Your task to perform on an android device: Search for the best running shoes on Nike. Image 0: 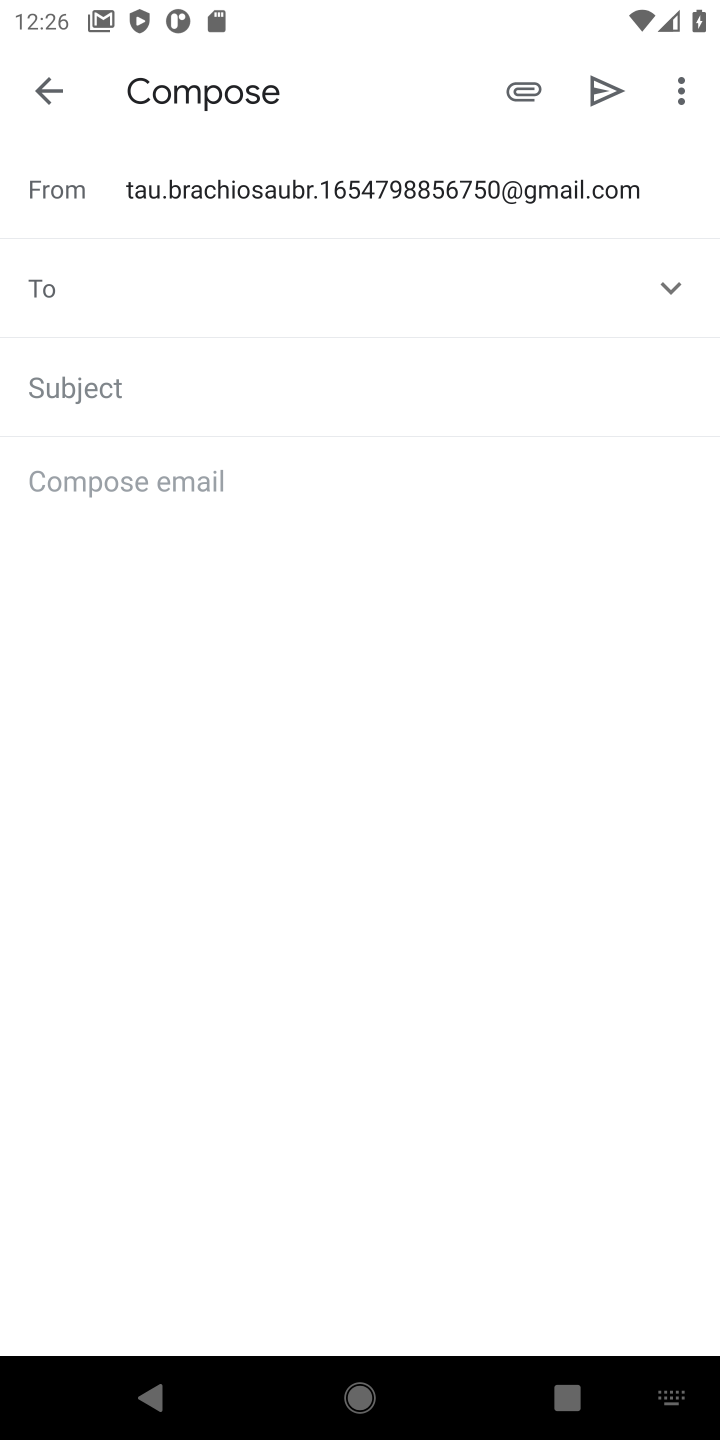
Step 0: press home button
Your task to perform on an android device: Search for the best running shoes on Nike. Image 1: 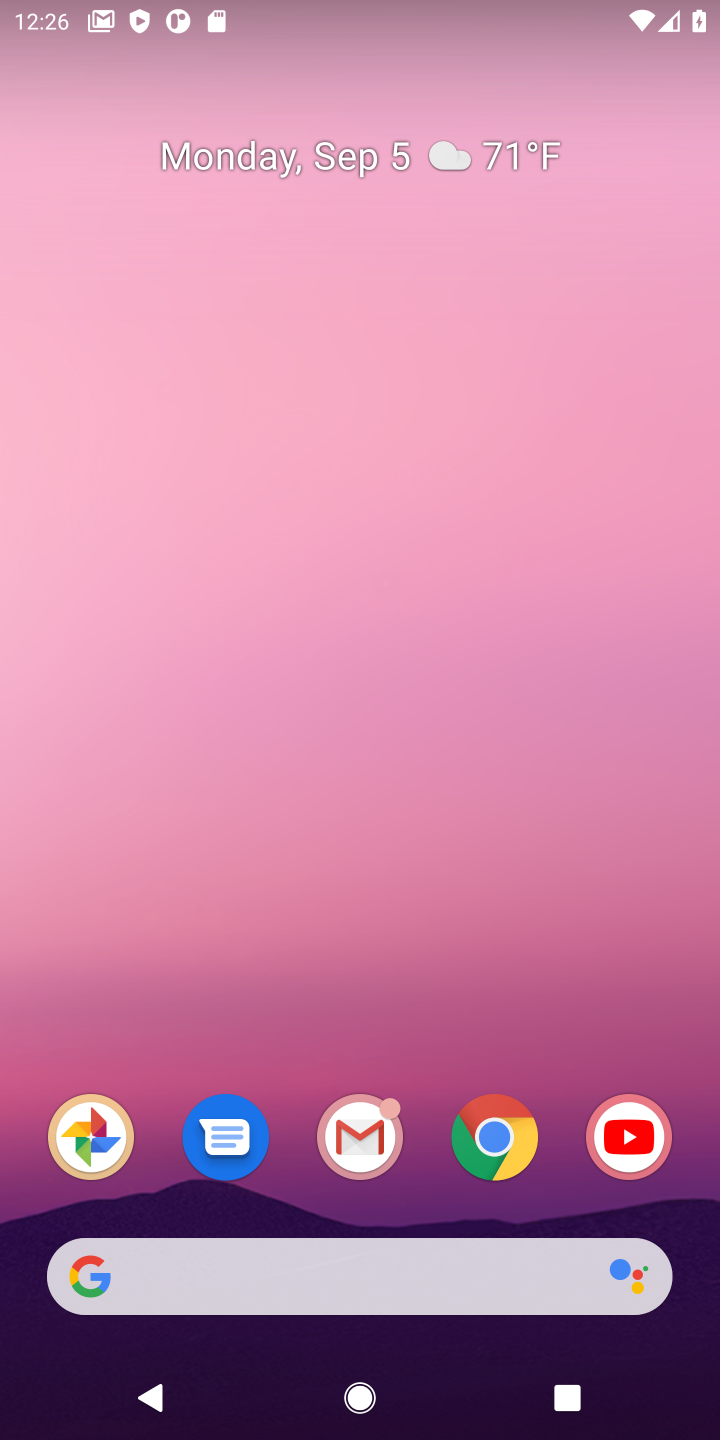
Step 1: click (486, 1141)
Your task to perform on an android device: Search for the best running shoes on Nike. Image 2: 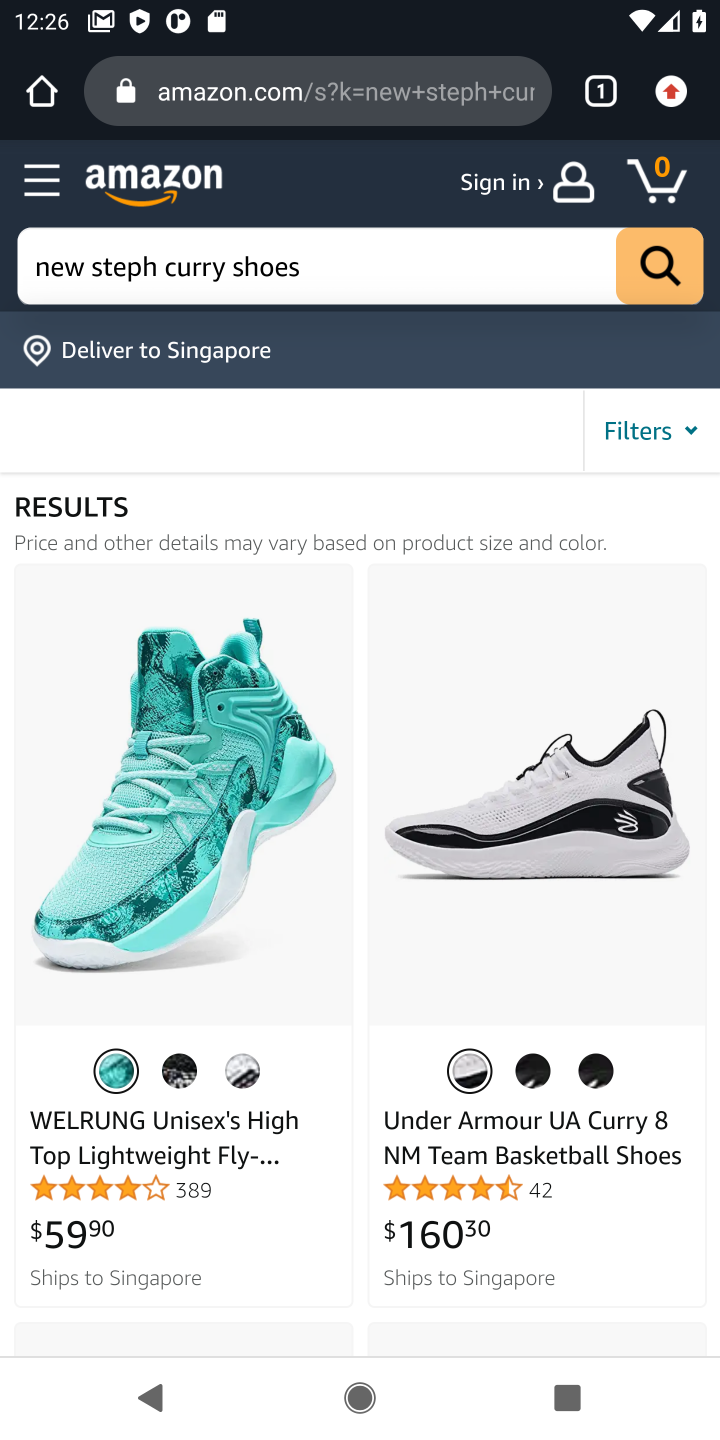
Step 2: click (295, 105)
Your task to perform on an android device: Search for the best running shoes on Nike. Image 3: 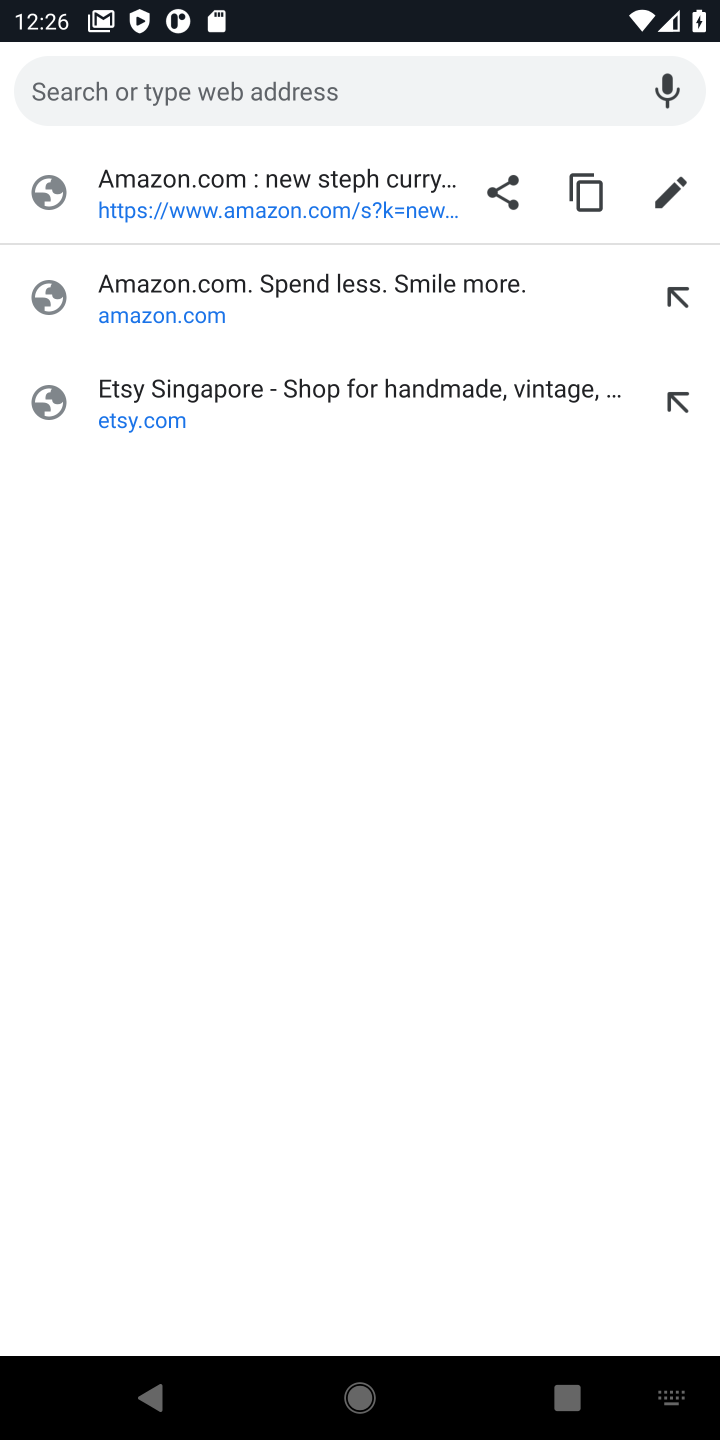
Step 3: click (443, 95)
Your task to perform on an android device: Search for the best running shoes on Nike. Image 4: 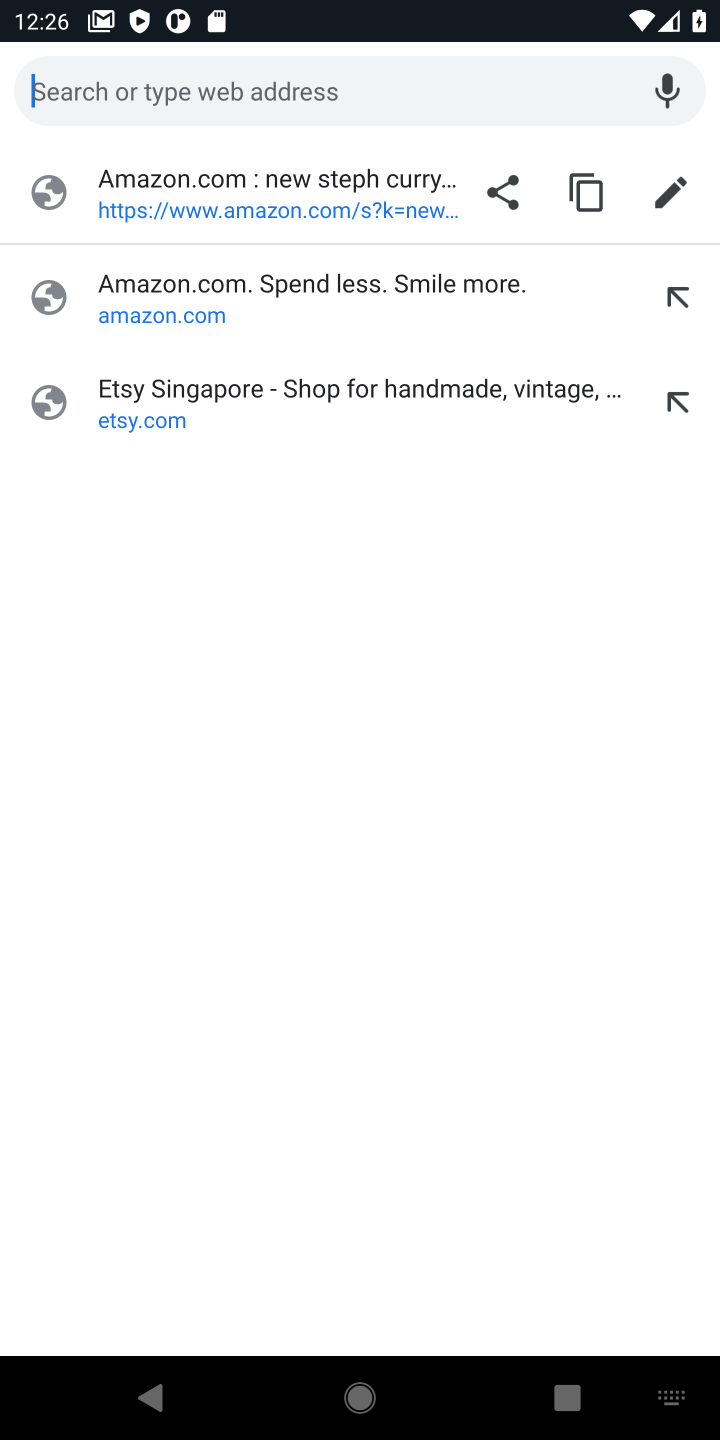
Step 4: type "nike"
Your task to perform on an android device: Search for the best running shoes on Nike. Image 5: 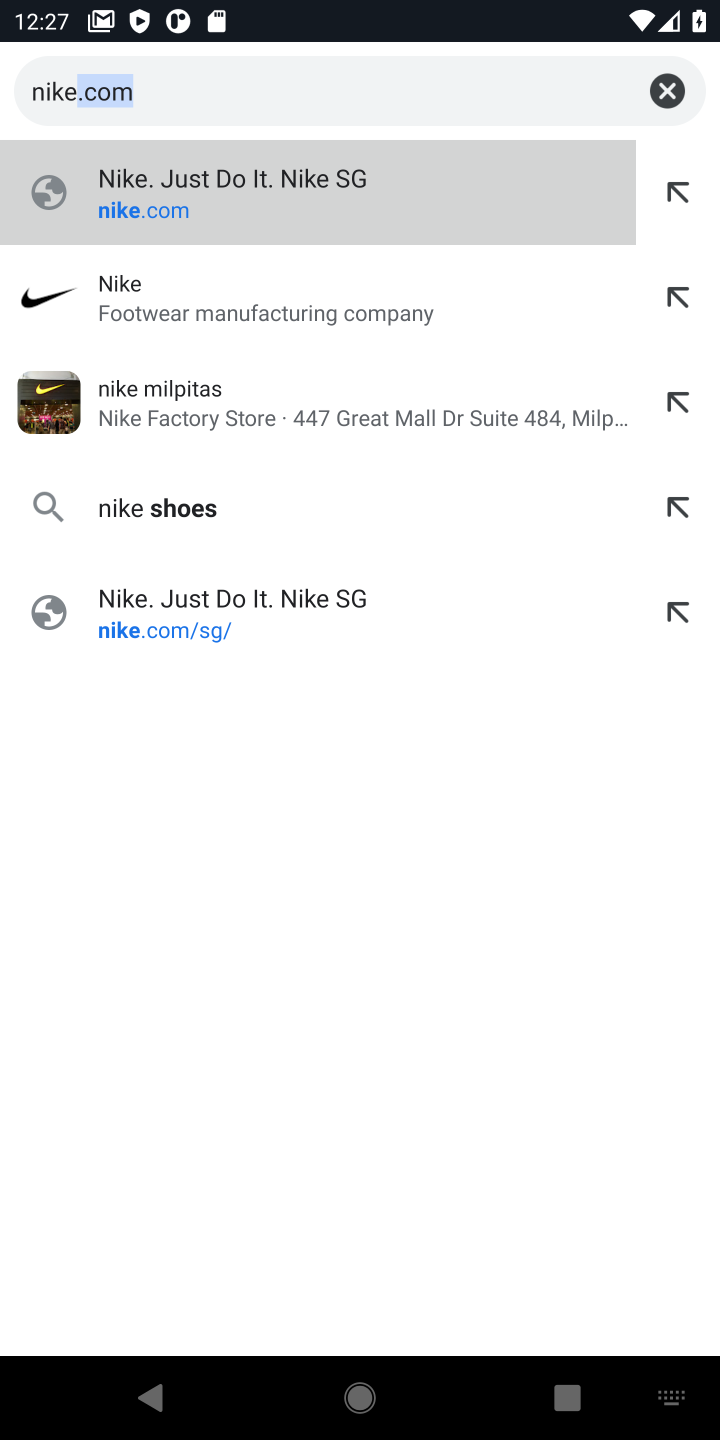
Step 5: click (223, 189)
Your task to perform on an android device: Search for the best running shoes on Nike. Image 6: 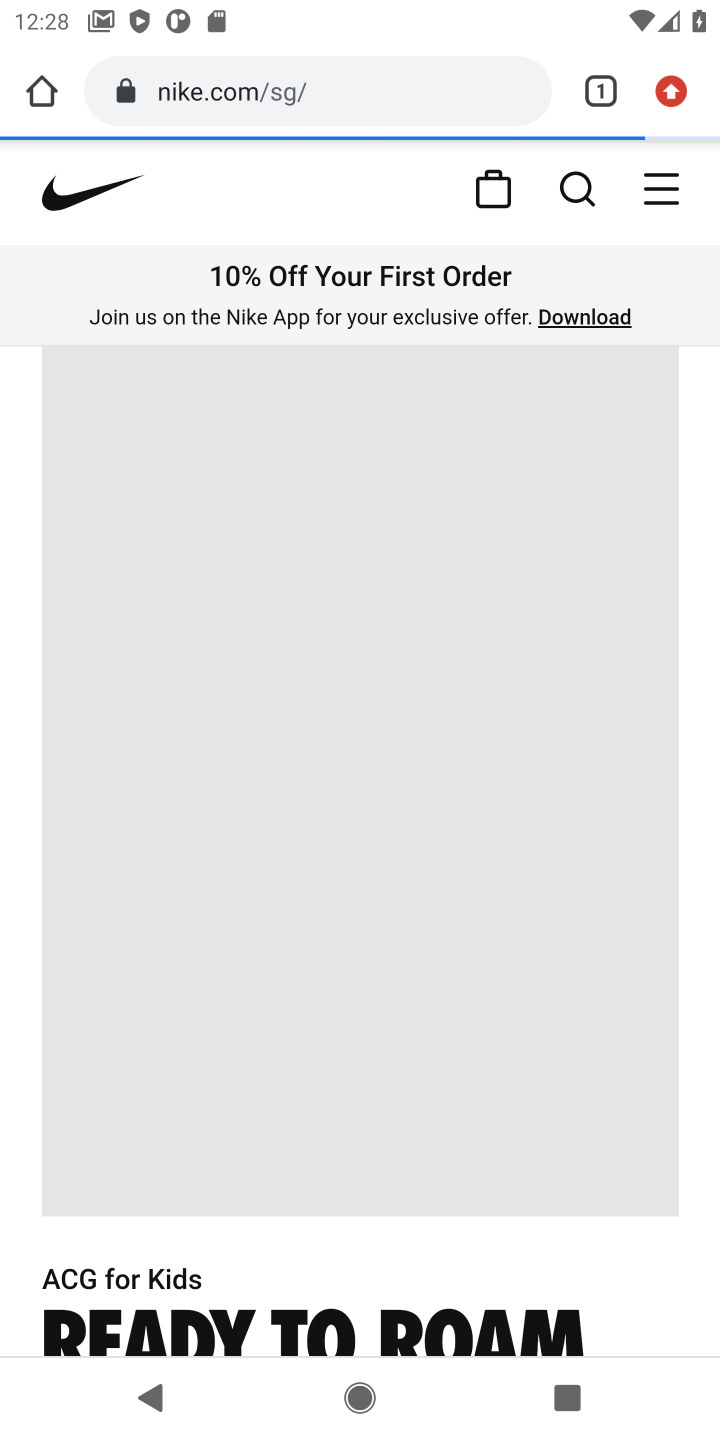
Step 6: click (573, 186)
Your task to perform on an android device: Search for the best running shoes on Nike. Image 7: 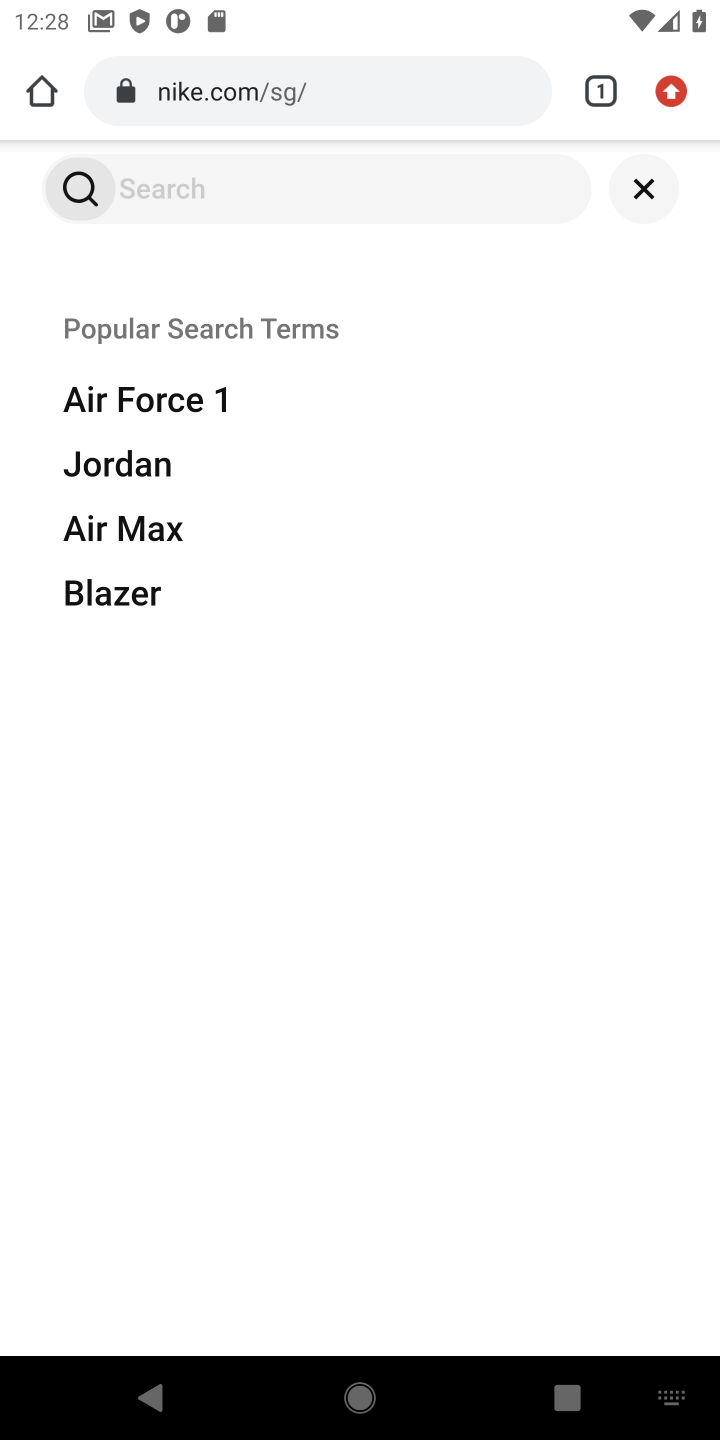
Step 7: click (398, 179)
Your task to perform on an android device: Search for the best running shoes on Nike. Image 8: 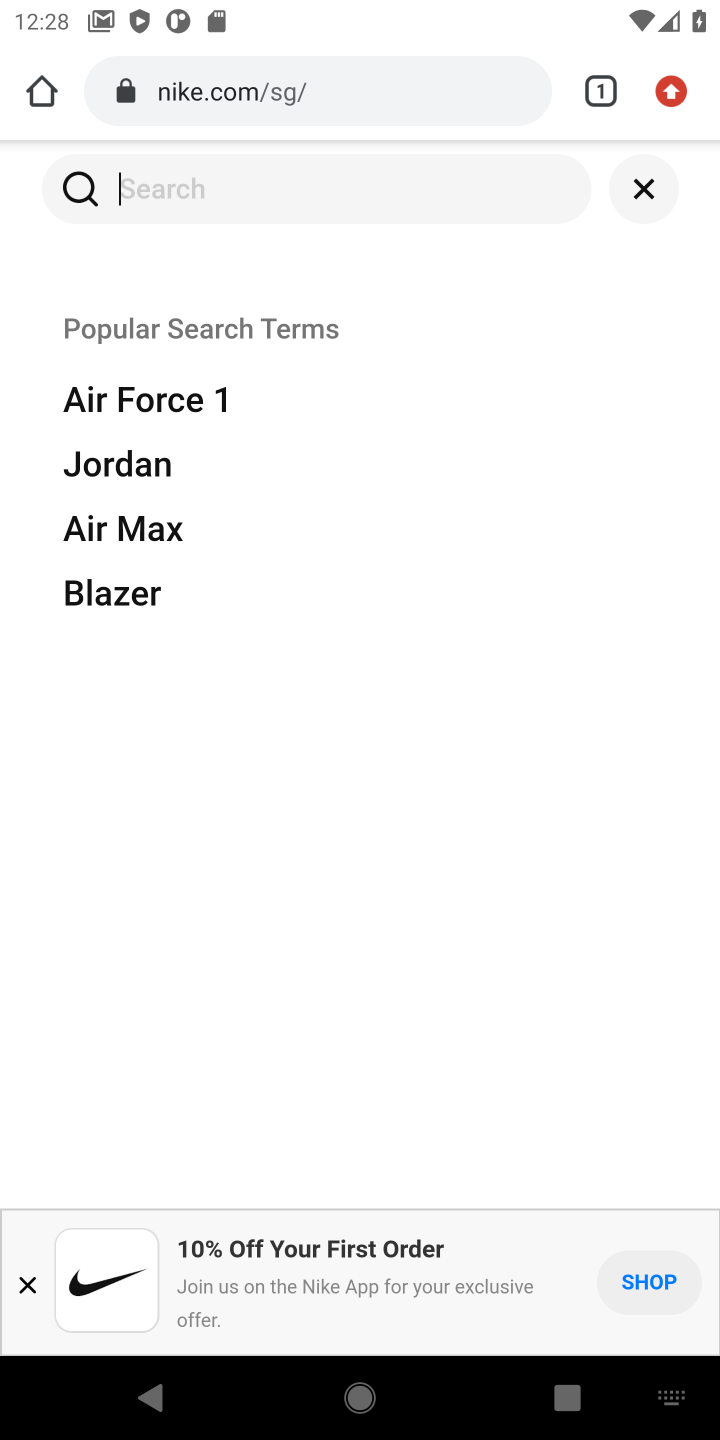
Step 8: type "running shoes"
Your task to perform on an android device: Search for the best running shoes on Nike. Image 9: 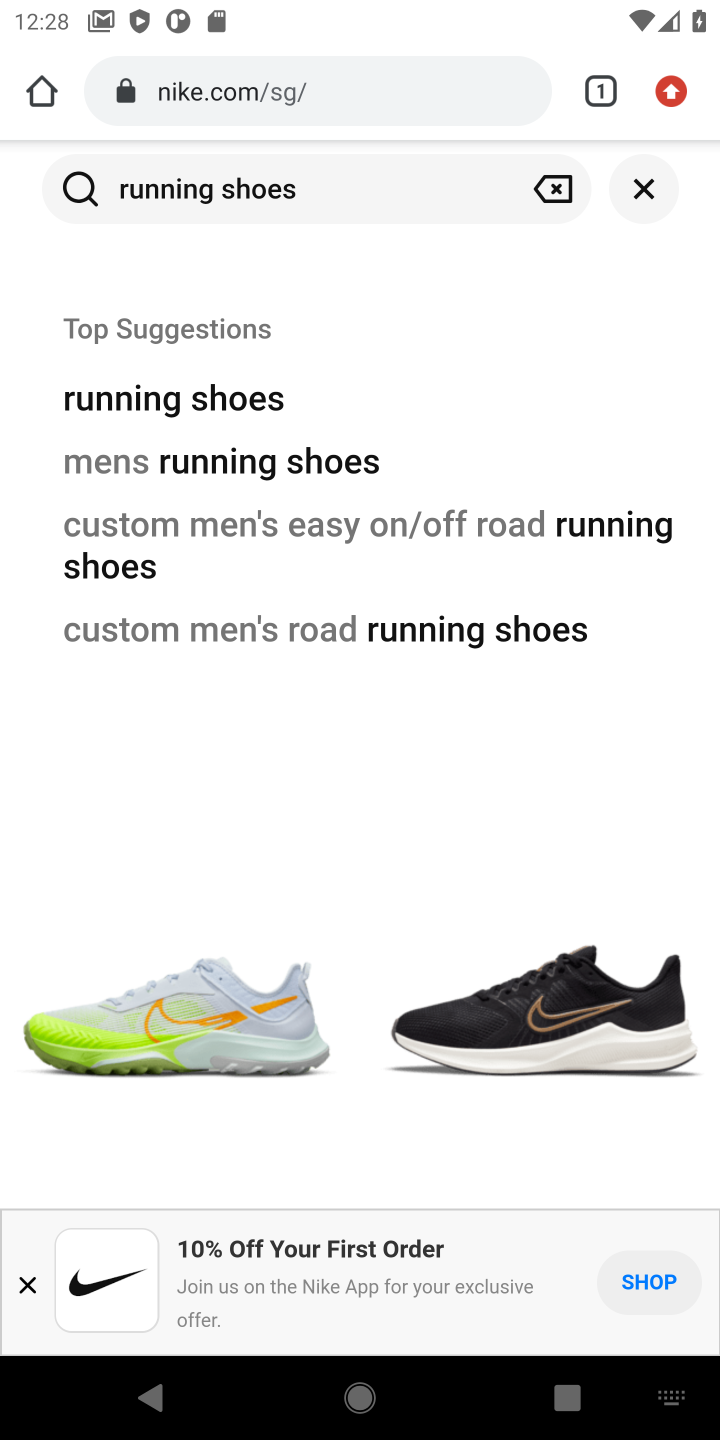
Step 9: click (216, 398)
Your task to perform on an android device: Search for the best running shoes on Nike. Image 10: 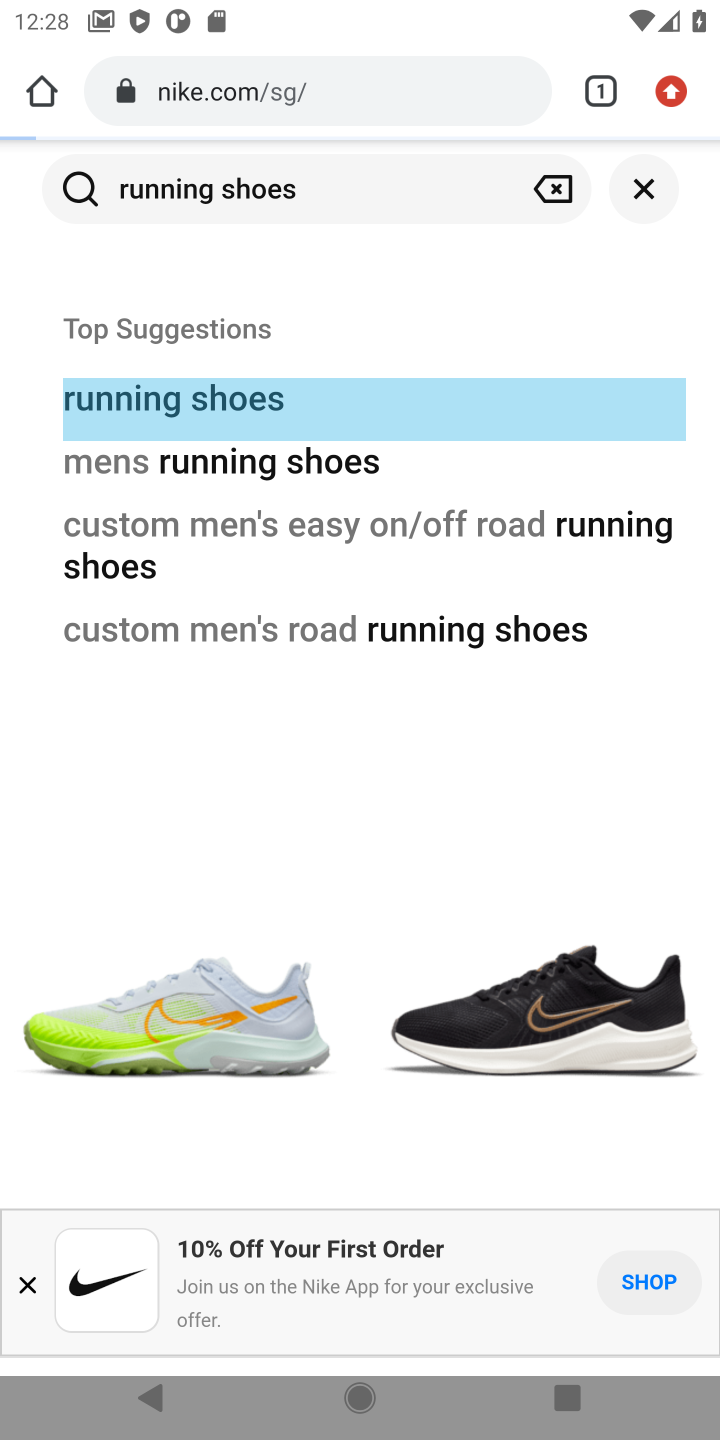
Step 10: task complete